Your task to perform on an android device: Go to Google maps Image 0: 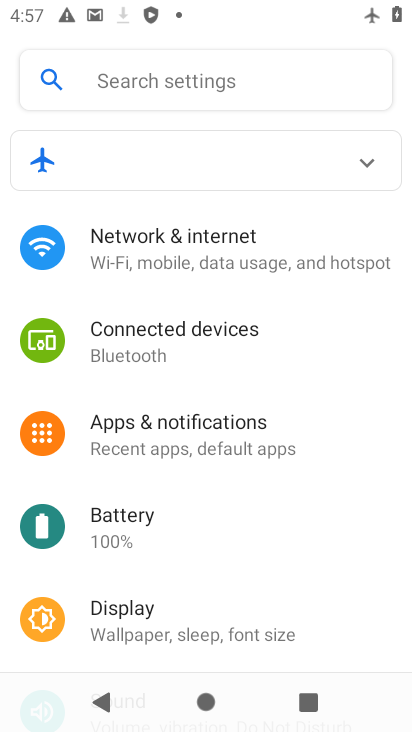
Step 0: drag from (212, 562) to (189, 102)
Your task to perform on an android device: Go to Google maps Image 1: 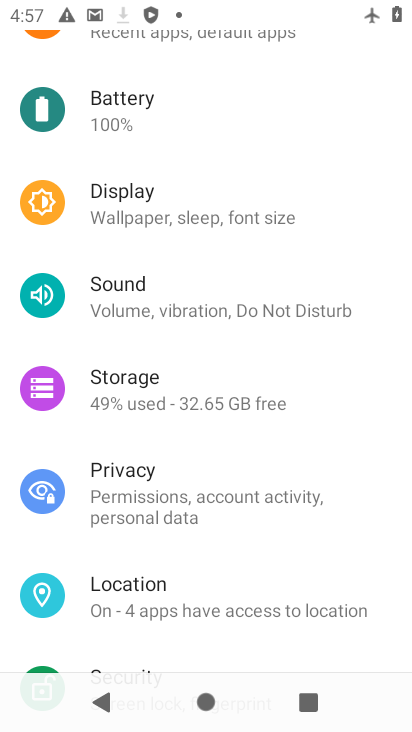
Step 1: press home button
Your task to perform on an android device: Go to Google maps Image 2: 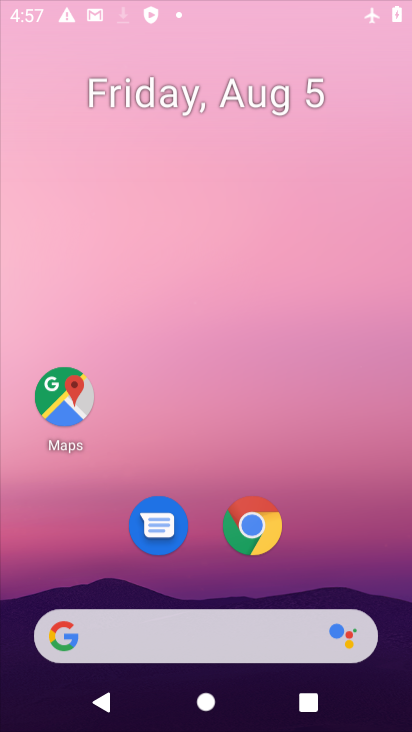
Step 2: drag from (225, 628) to (191, 123)
Your task to perform on an android device: Go to Google maps Image 3: 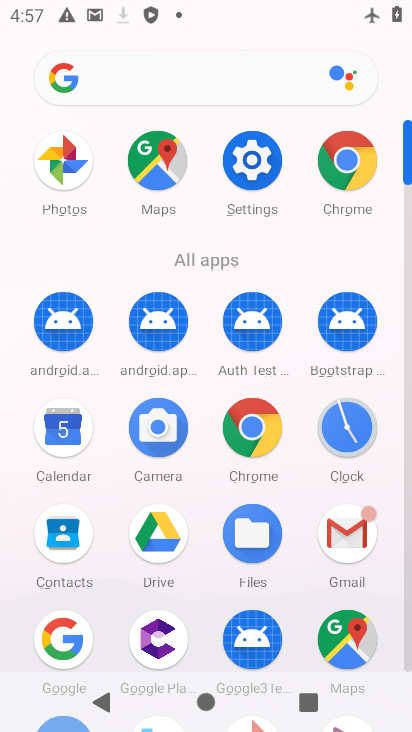
Step 3: click (343, 630)
Your task to perform on an android device: Go to Google maps Image 4: 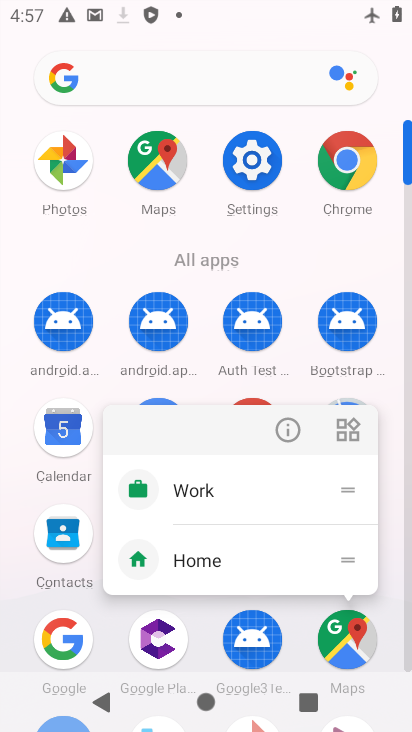
Step 4: click (288, 409)
Your task to perform on an android device: Go to Google maps Image 5: 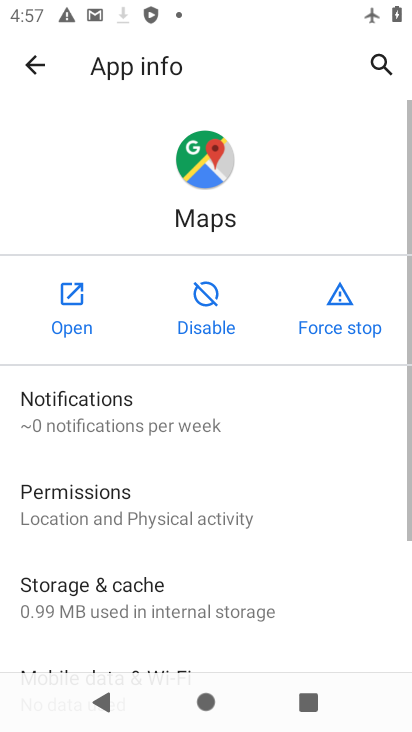
Step 5: click (76, 296)
Your task to perform on an android device: Go to Google maps Image 6: 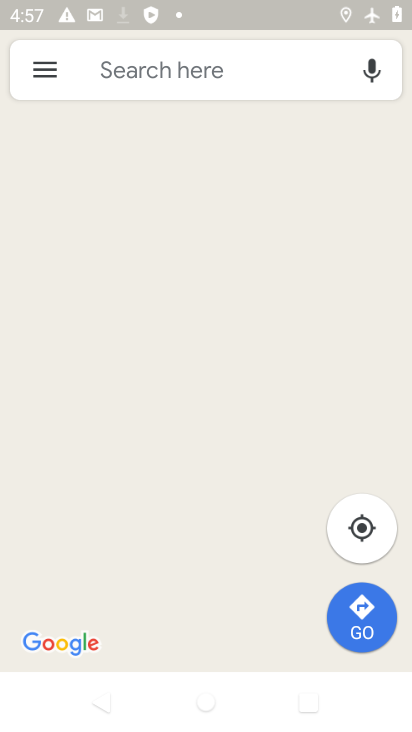
Step 6: click (112, 77)
Your task to perform on an android device: Go to Google maps Image 7: 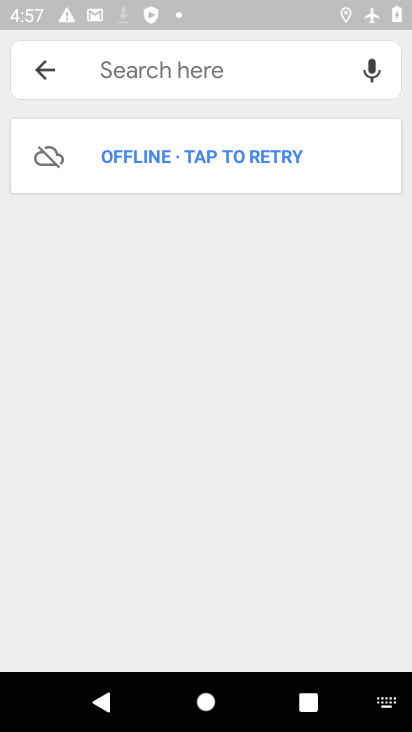
Step 7: click (51, 84)
Your task to perform on an android device: Go to Google maps Image 8: 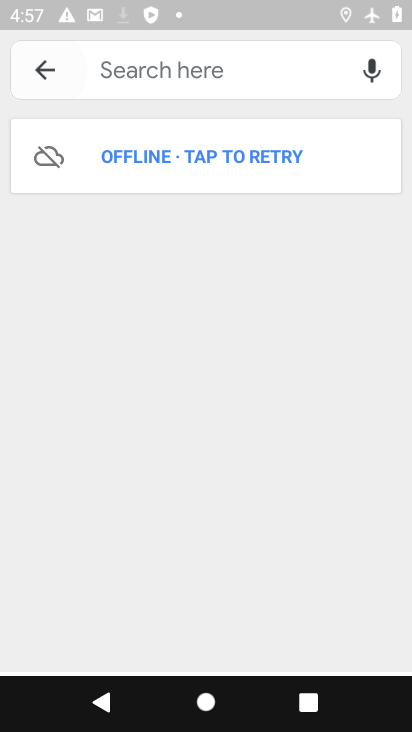
Step 8: task complete